Your task to perform on an android device: allow cookies in the chrome app Image 0: 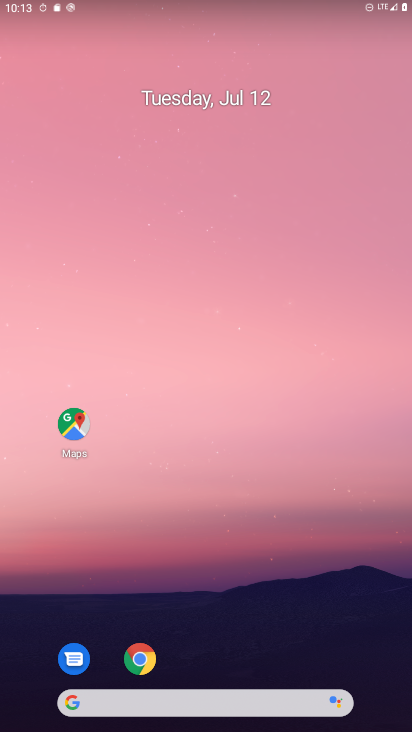
Step 0: drag from (381, 673) to (270, 91)
Your task to perform on an android device: allow cookies in the chrome app Image 1: 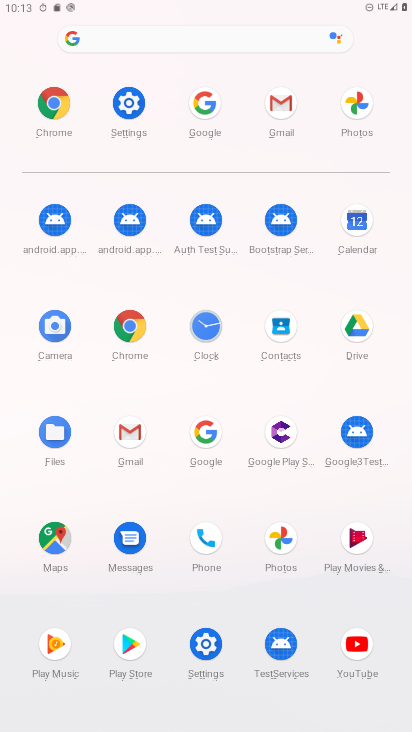
Step 1: click (135, 337)
Your task to perform on an android device: allow cookies in the chrome app Image 2: 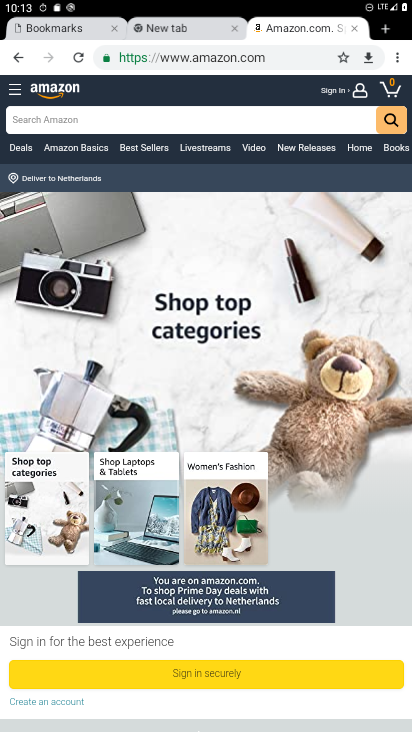
Step 2: press back button
Your task to perform on an android device: allow cookies in the chrome app Image 3: 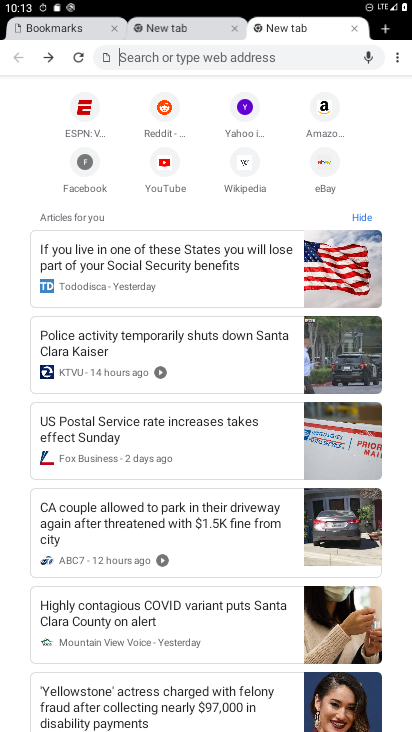
Step 3: click (398, 54)
Your task to perform on an android device: allow cookies in the chrome app Image 4: 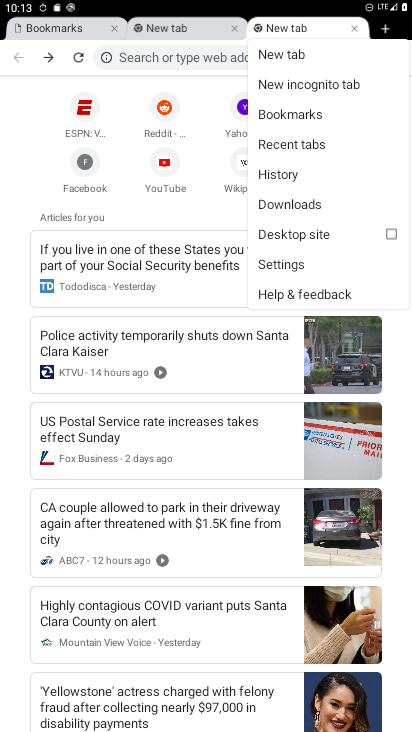
Step 4: click (300, 177)
Your task to perform on an android device: allow cookies in the chrome app Image 5: 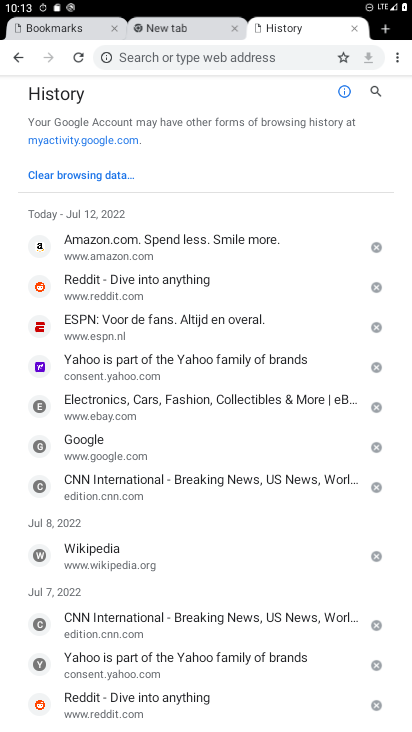
Step 5: click (102, 177)
Your task to perform on an android device: allow cookies in the chrome app Image 6: 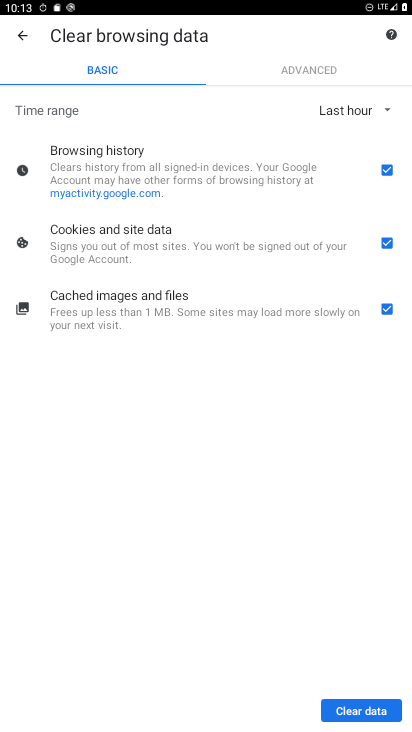
Step 6: task complete